Your task to perform on an android device: Is it going to rain tomorrow? Image 0: 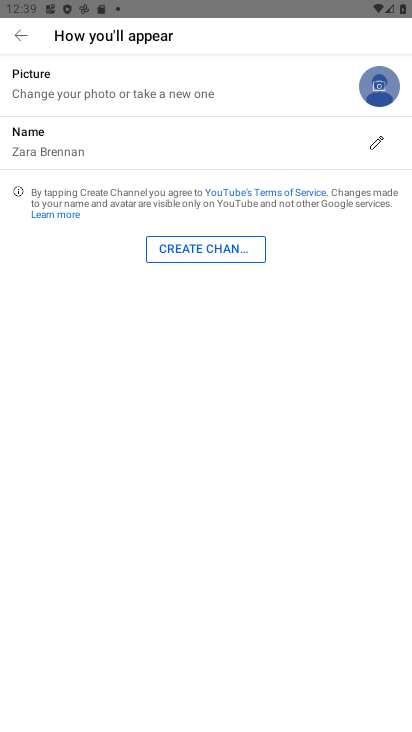
Step 0: press home button
Your task to perform on an android device: Is it going to rain tomorrow? Image 1: 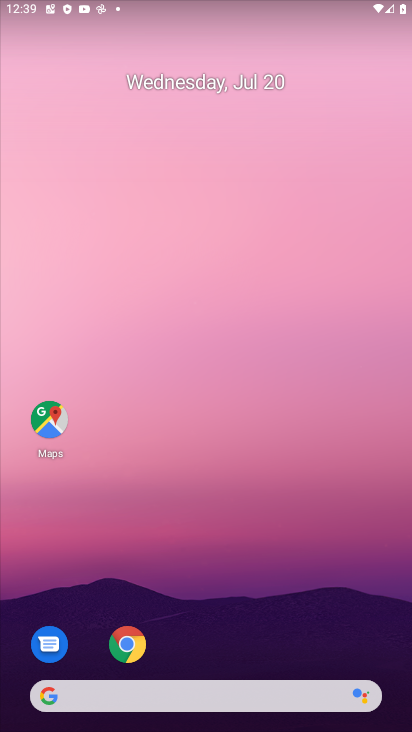
Step 1: click (116, 643)
Your task to perform on an android device: Is it going to rain tomorrow? Image 2: 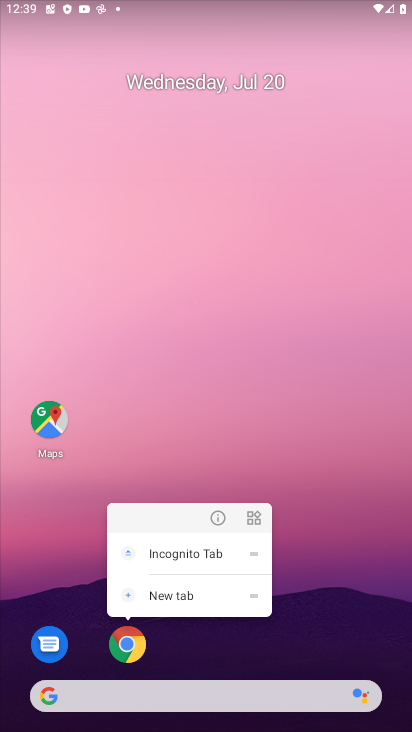
Step 2: click (131, 651)
Your task to perform on an android device: Is it going to rain tomorrow? Image 3: 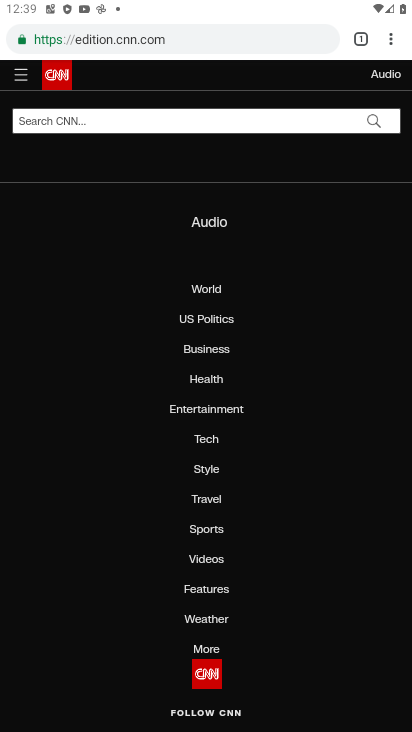
Step 3: click (221, 42)
Your task to perform on an android device: Is it going to rain tomorrow? Image 4: 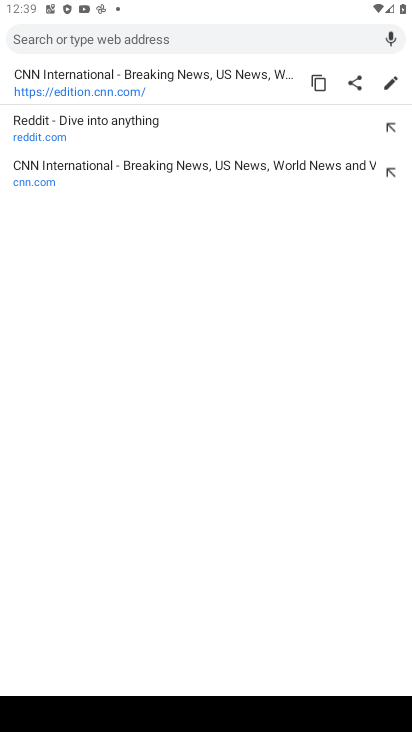
Step 4: type "Is it going to rain tomorrow?"
Your task to perform on an android device: Is it going to rain tomorrow? Image 5: 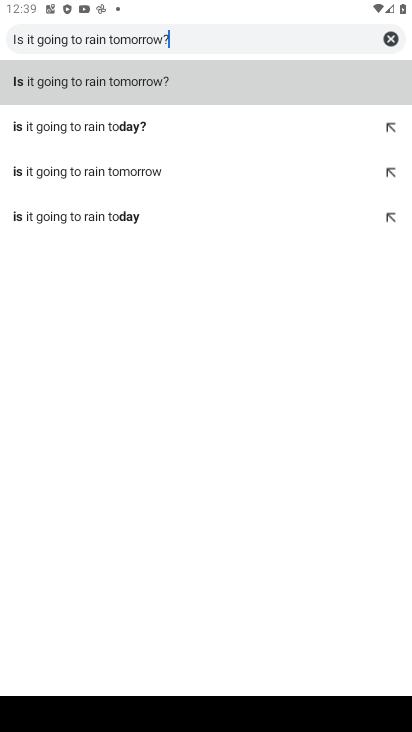
Step 5: type ""
Your task to perform on an android device: Is it going to rain tomorrow? Image 6: 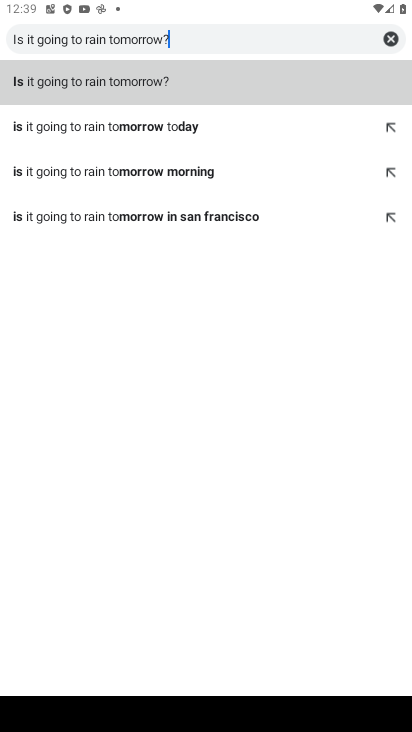
Step 6: click (102, 78)
Your task to perform on an android device: Is it going to rain tomorrow? Image 7: 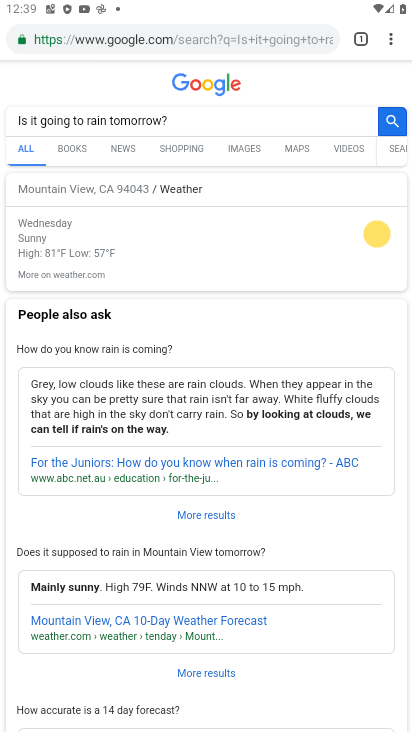
Step 7: task complete